Your task to perform on an android device: Open maps Image 0: 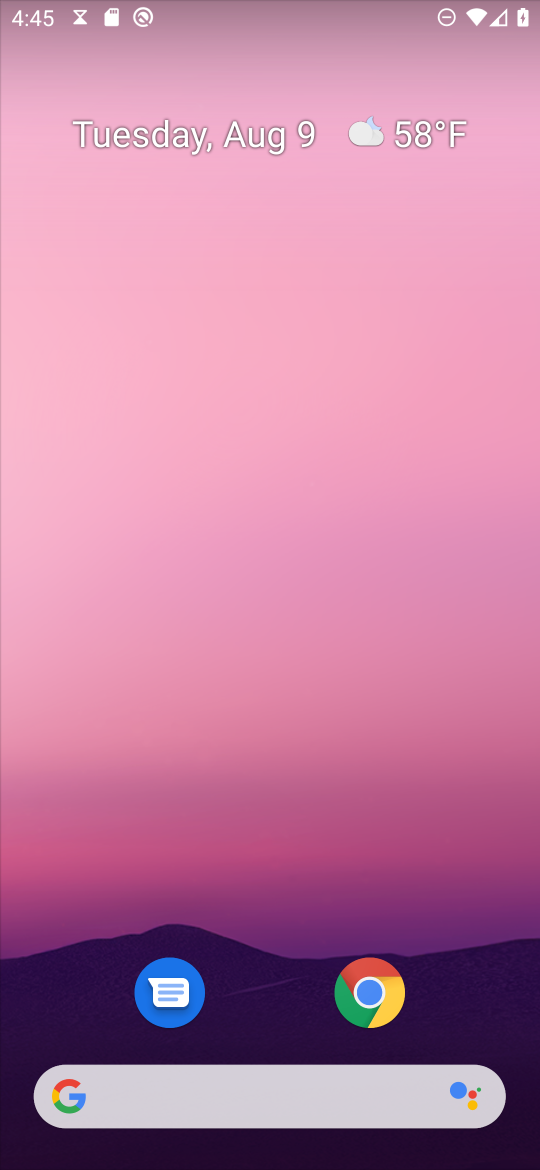
Step 0: drag from (346, 1130) to (314, 203)
Your task to perform on an android device: Open maps Image 1: 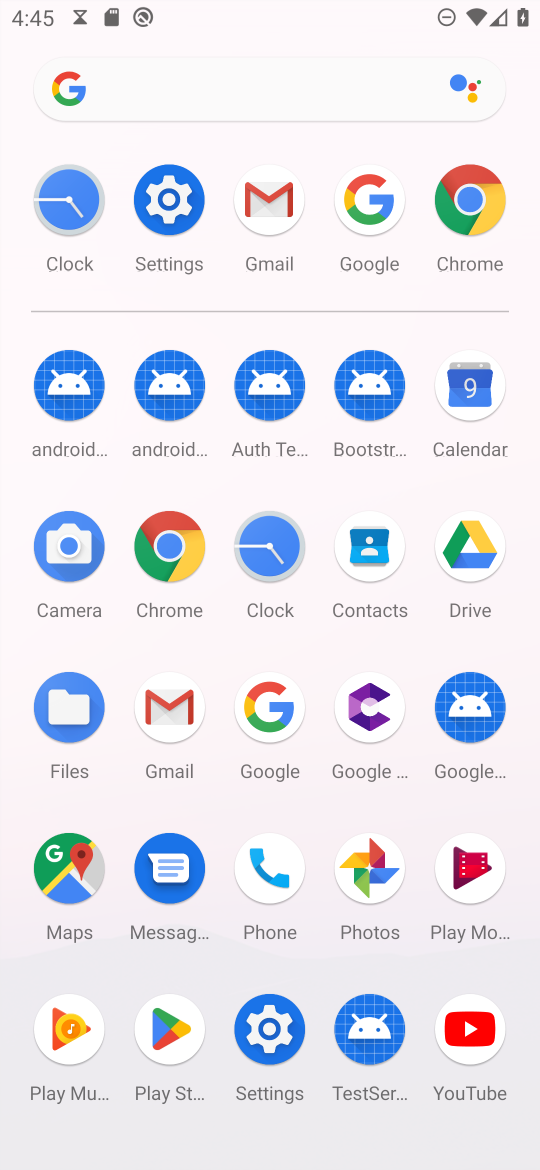
Step 1: click (69, 836)
Your task to perform on an android device: Open maps Image 2: 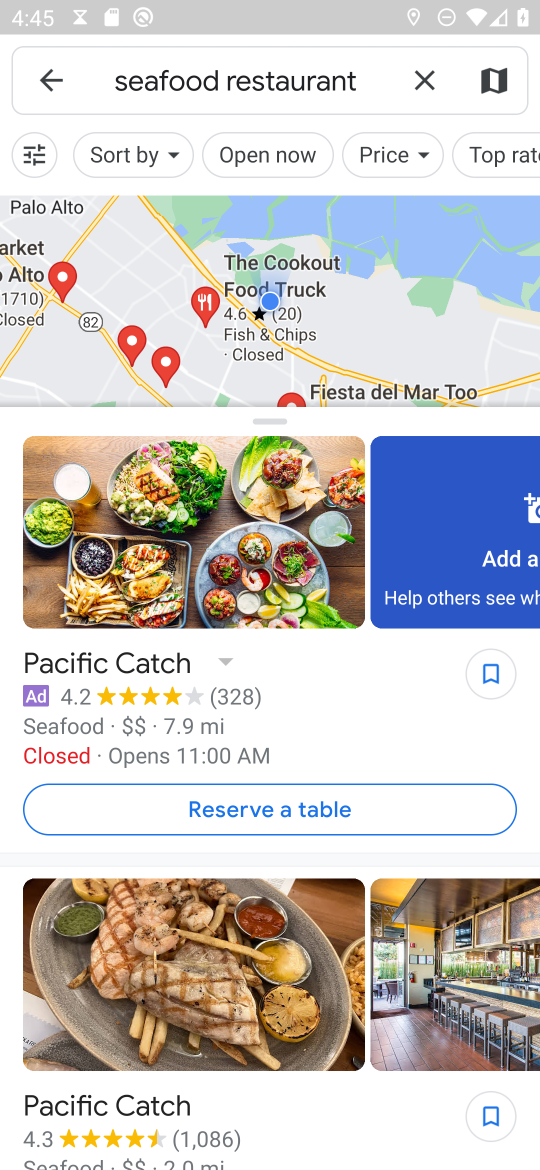
Step 2: task complete